Your task to perform on an android device: Show me recent news Image 0: 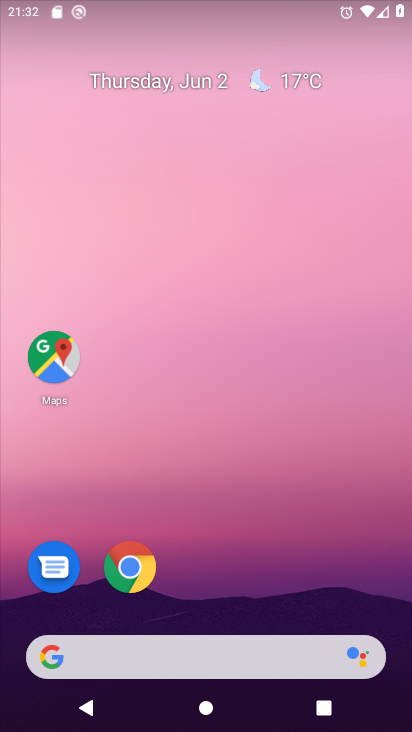
Step 0: drag from (237, 613) to (208, 641)
Your task to perform on an android device: Show me recent news Image 1: 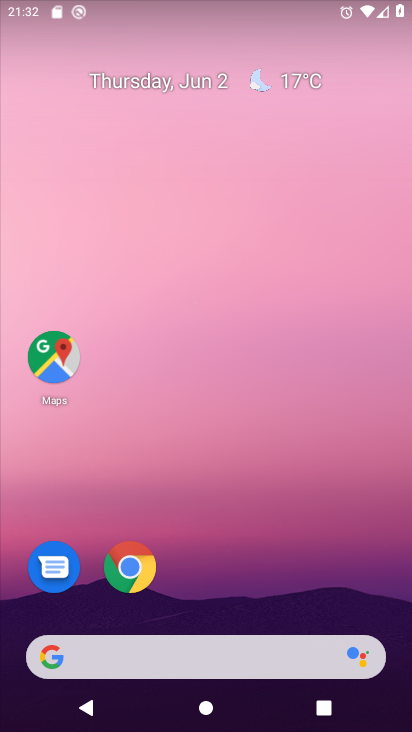
Step 1: click (194, 650)
Your task to perform on an android device: Show me recent news Image 2: 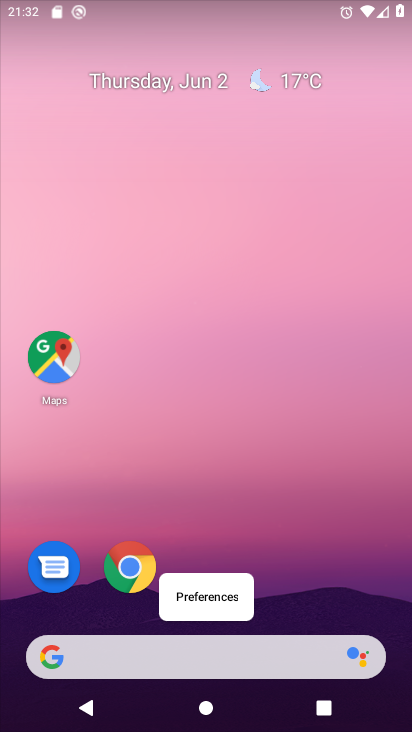
Step 2: click (190, 663)
Your task to perform on an android device: Show me recent news Image 3: 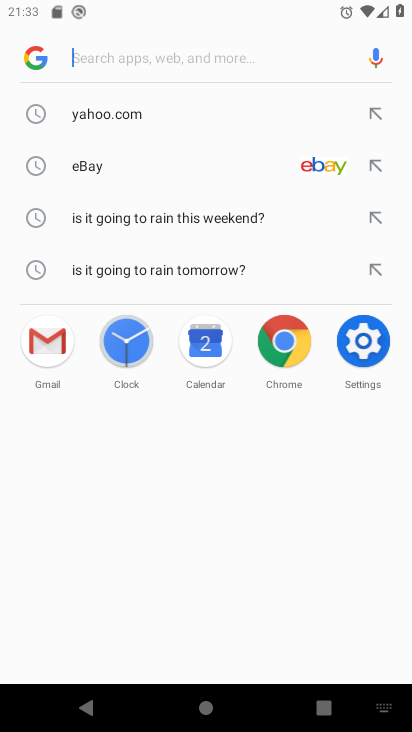
Step 3: type "recent news"
Your task to perform on an android device: Show me recent news Image 4: 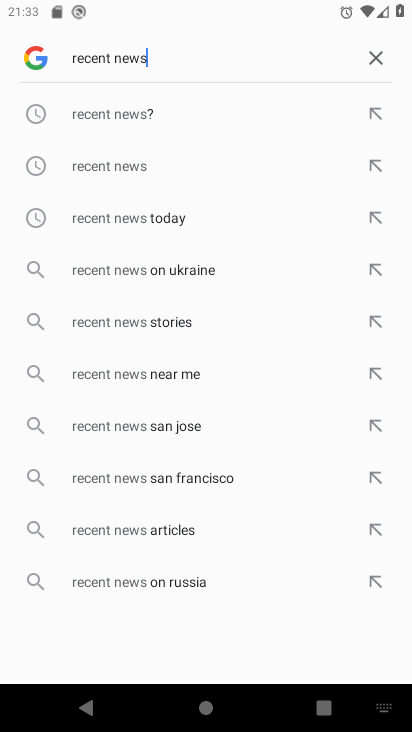
Step 4: click (143, 165)
Your task to perform on an android device: Show me recent news Image 5: 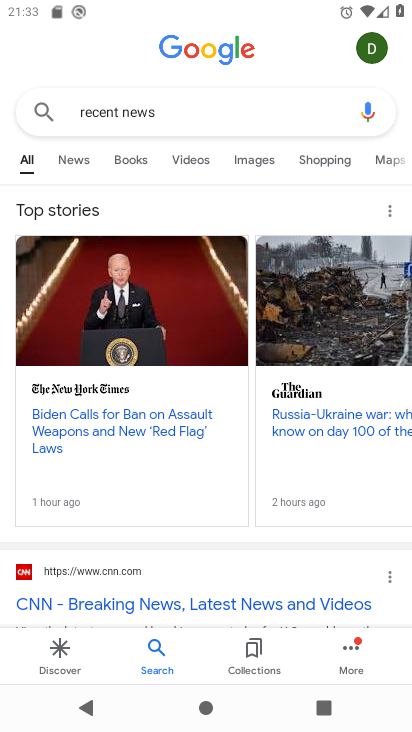
Step 5: task complete